Your task to perform on an android device: open app "Indeed Job Search" Image 0: 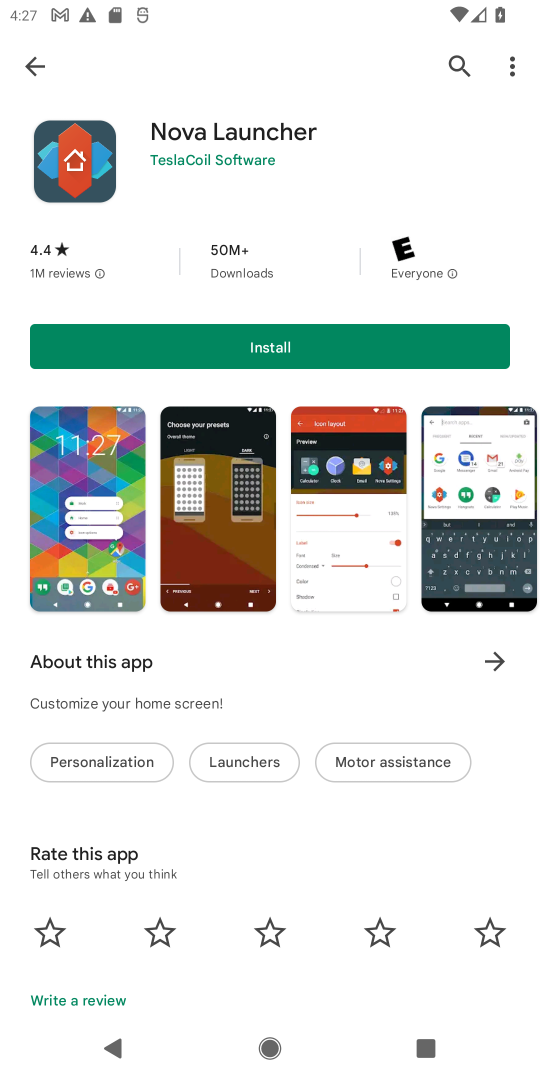
Step 0: press home button
Your task to perform on an android device: open app "Indeed Job Search" Image 1: 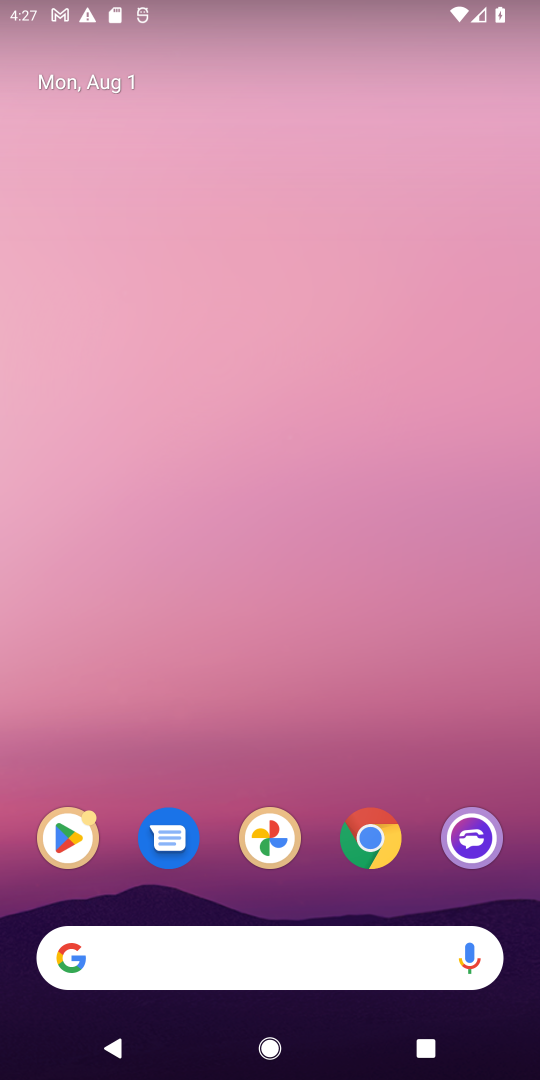
Step 1: click (63, 839)
Your task to perform on an android device: open app "Indeed Job Search" Image 2: 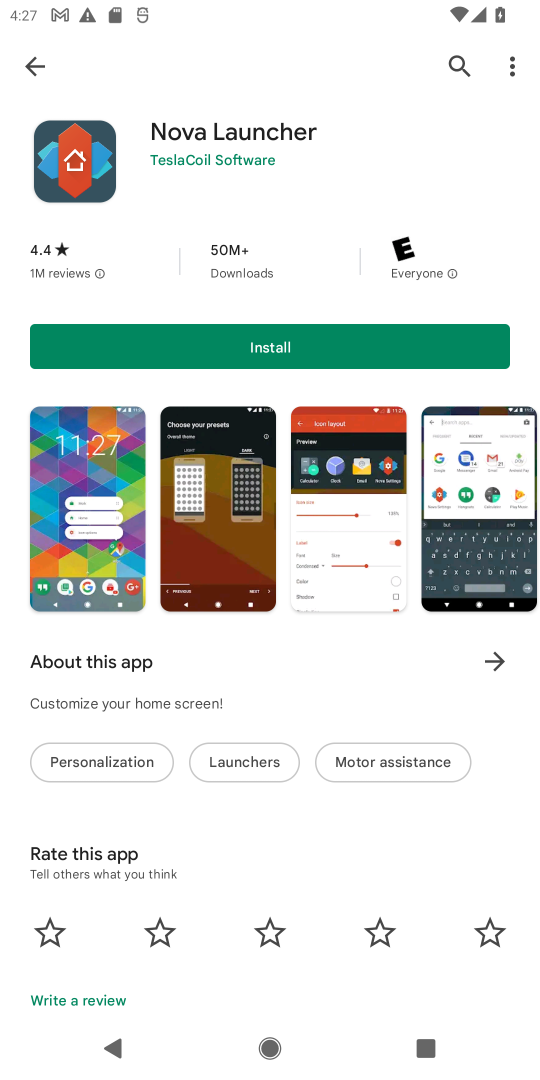
Step 2: click (463, 52)
Your task to perform on an android device: open app "Indeed Job Search" Image 3: 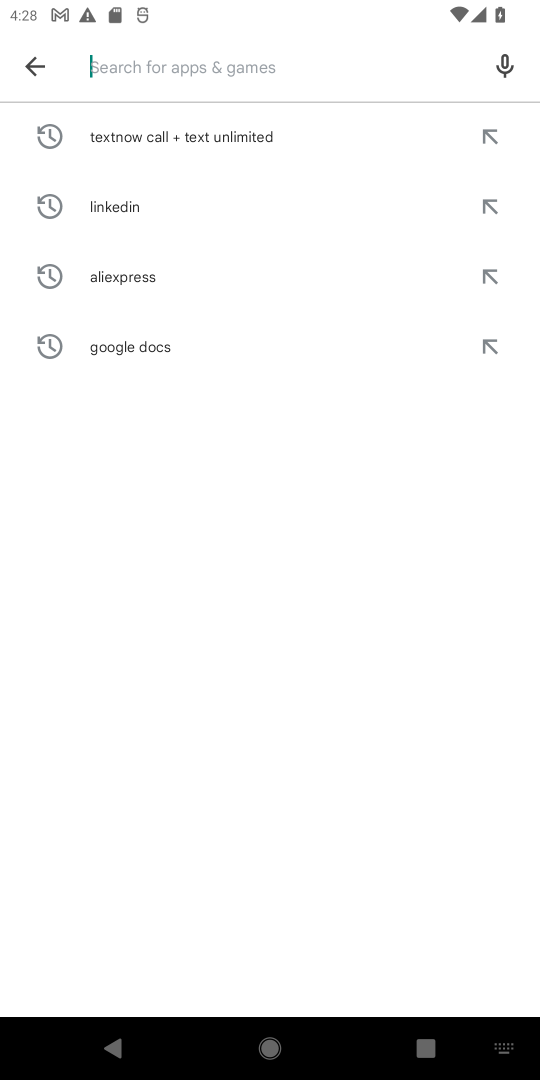
Step 3: type "indeed job search"
Your task to perform on an android device: open app "Indeed Job Search" Image 4: 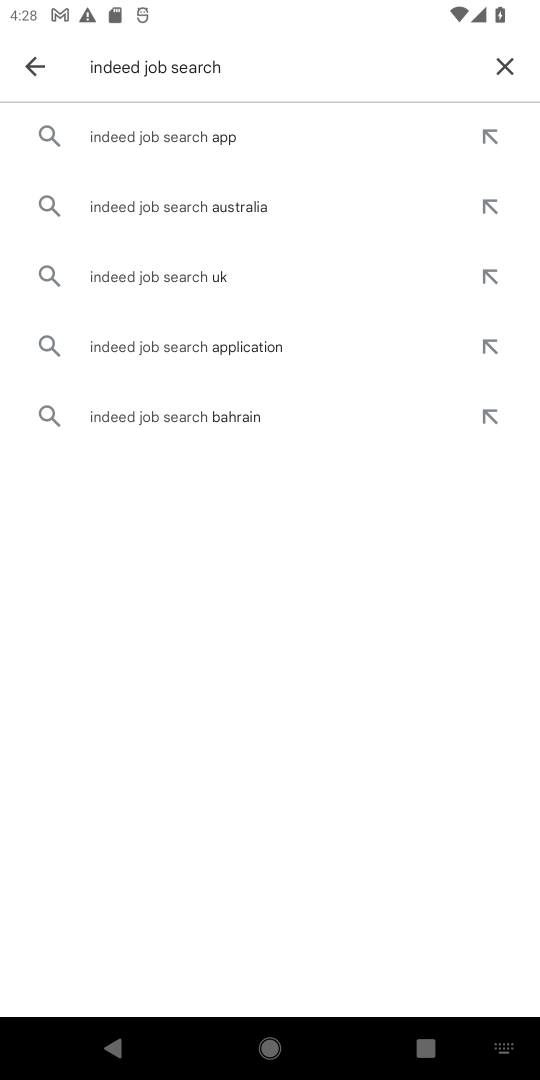
Step 4: click (174, 125)
Your task to perform on an android device: open app "Indeed Job Search" Image 5: 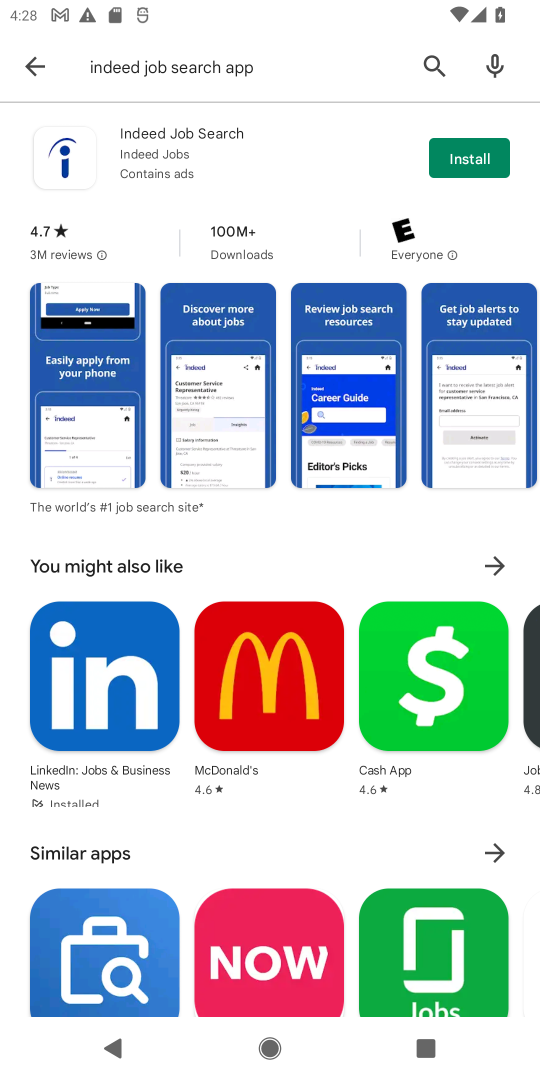
Step 5: click (489, 161)
Your task to perform on an android device: open app "Indeed Job Search" Image 6: 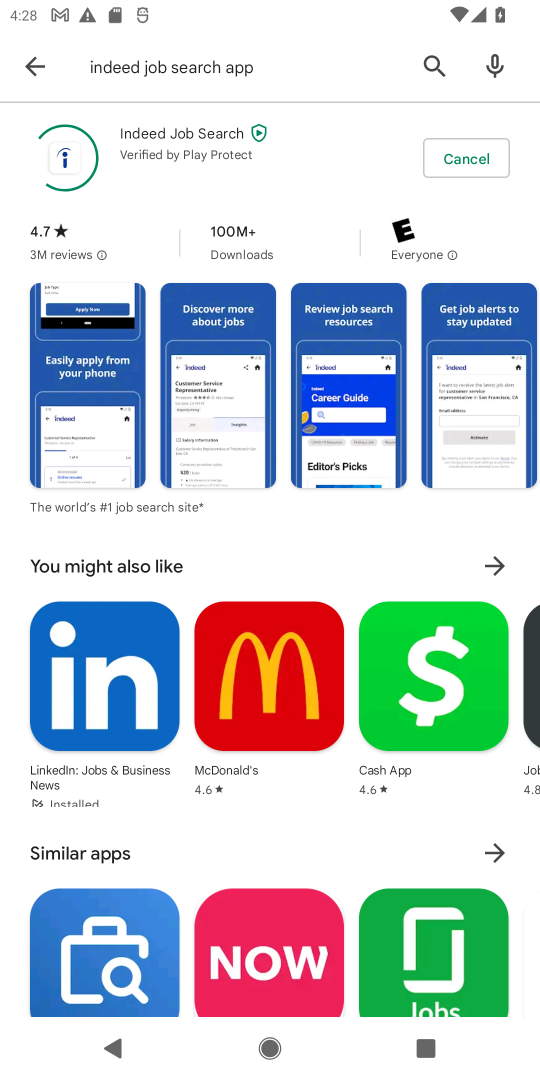
Step 6: click (478, 161)
Your task to perform on an android device: open app "Indeed Job Search" Image 7: 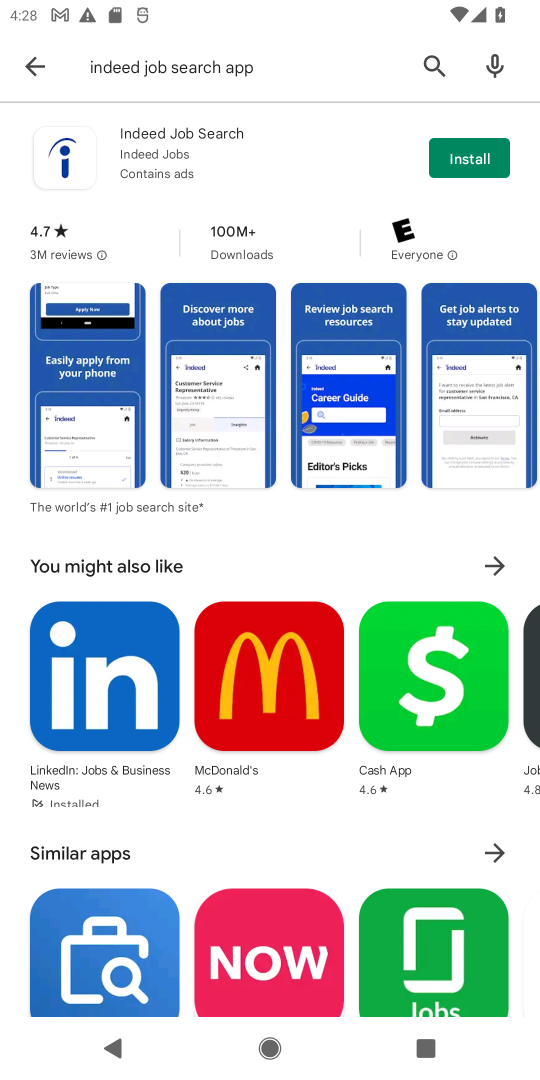
Step 7: task complete